Your task to perform on an android device: Open calendar and show me the first week of next month Image 0: 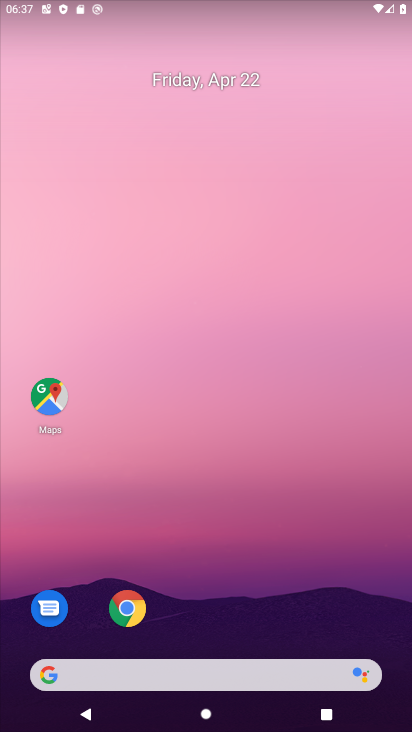
Step 0: drag from (202, 447) to (237, 230)
Your task to perform on an android device: Open calendar and show me the first week of next month Image 1: 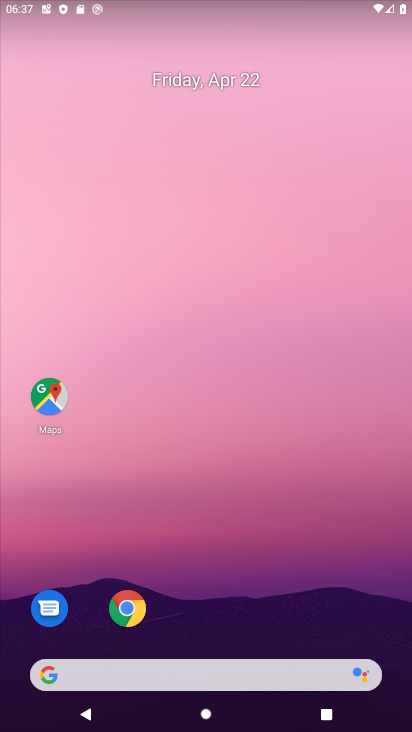
Step 1: drag from (242, 473) to (262, 144)
Your task to perform on an android device: Open calendar and show me the first week of next month Image 2: 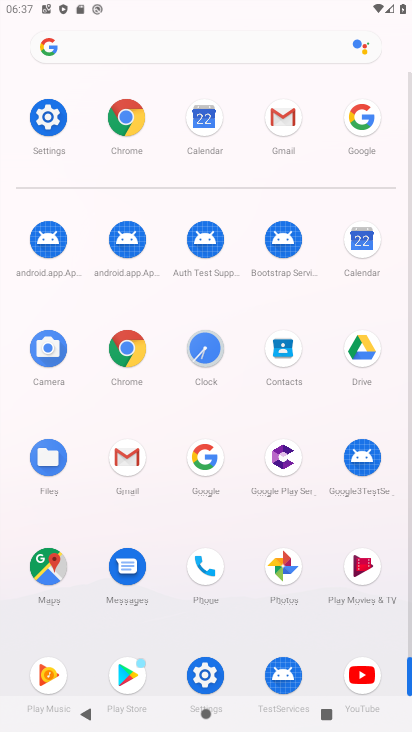
Step 2: click (373, 259)
Your task to perform on an android device: Open calendar and show me the first week of next month Image 3: 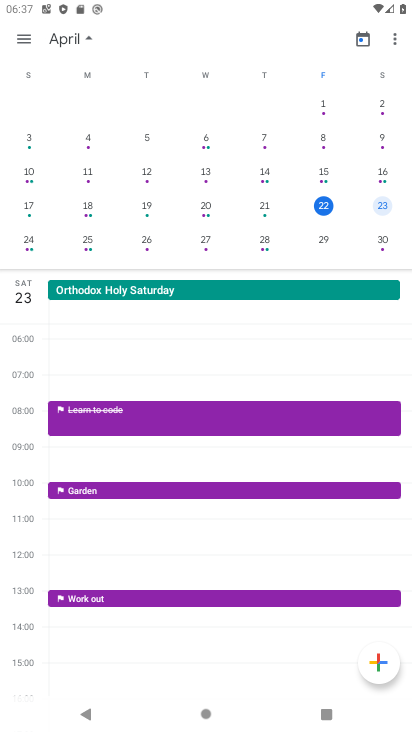
Step 3: click (75, 36)
Your task to perform on an android device: Open calendar and show me the first week of next month Image 4: 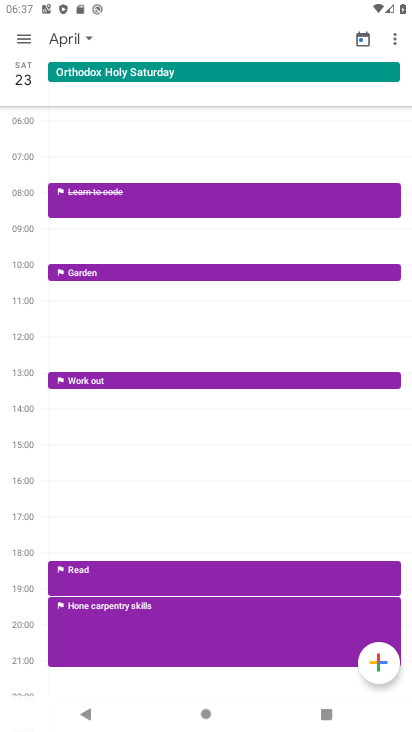
Step 4: click (28, 38)
Your task to perform on an android device: Open calendar and show me the first week of next month Image 5: 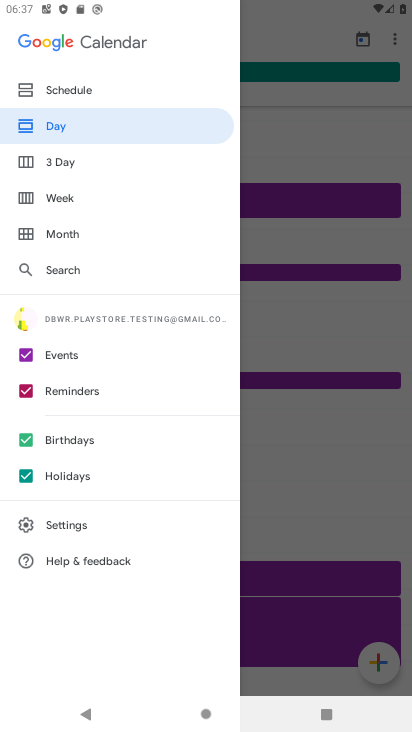
Step 5: click (55, 194)
Your task to perform on an android device: Open calendar and show me the first week of next month Image 6: 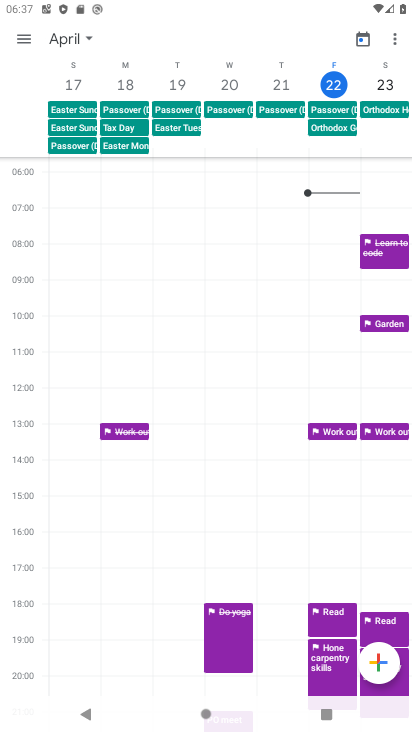
Step 6: click (63, 36)
Your task to perform on an android device: Open calendar and show me the first week of next month Image 7: 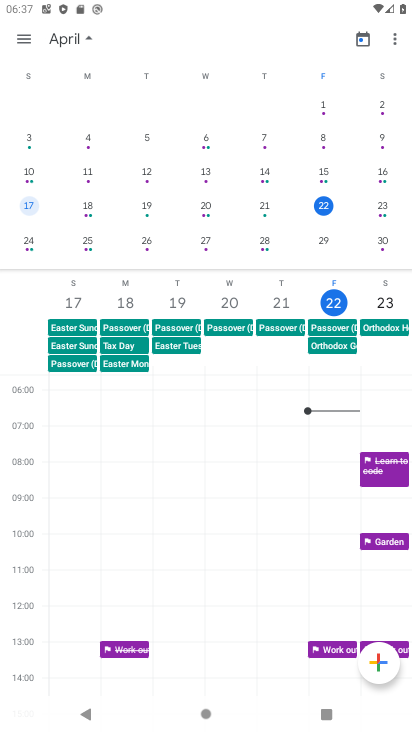
Step 7: drag from (309, 175) to (6, 202)
Your task to perform on an android device: Open calendar and show me the first week of next month Image 8: 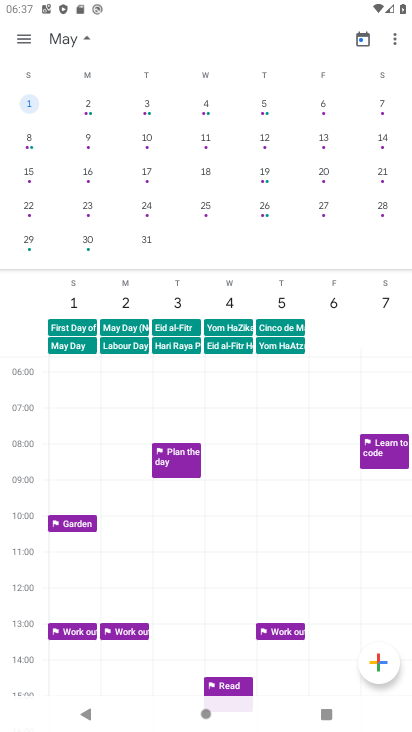
Step 8: click (34, 106)
Your task to perform on an android device: Open calendar and show me the first week of next month Image 9: 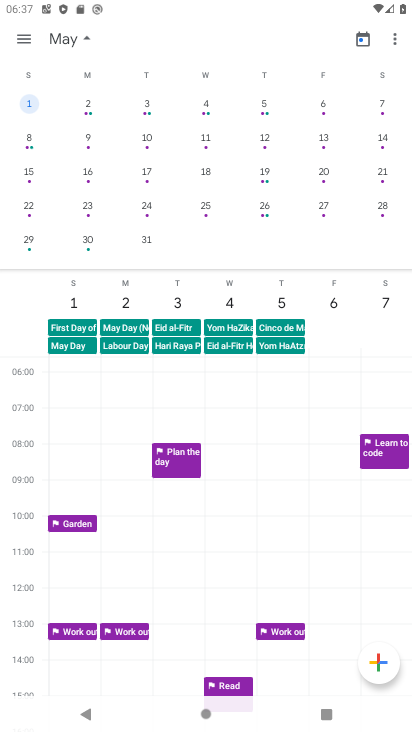
Step 9: click (34, 106)
Your task to perform on an android device: Open calendar and show me the first week of next month Image 10: 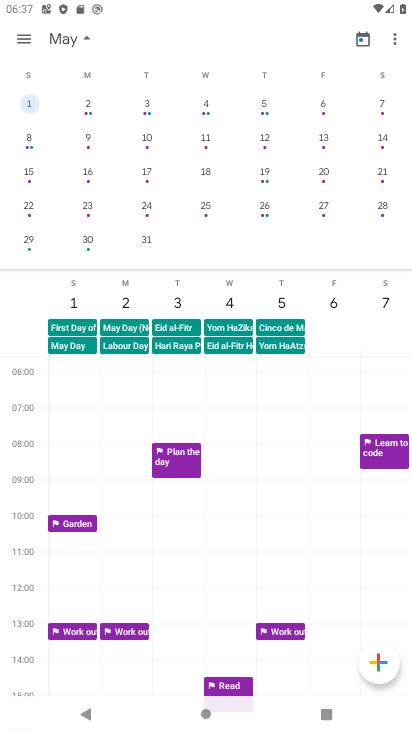
Step 10: task complete